Your task to perform on an android device: turn off airplane mode Image 0: 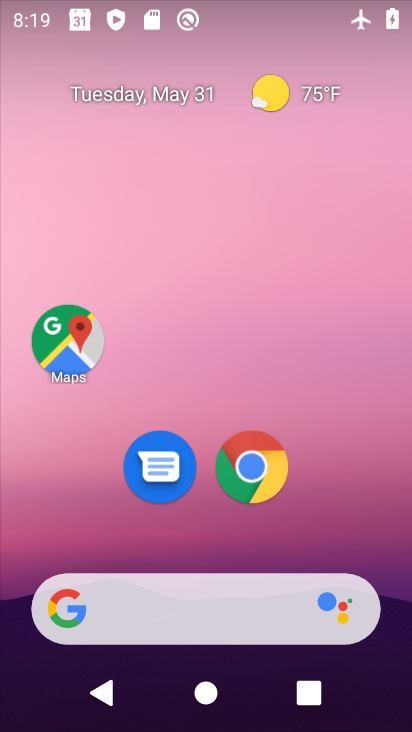
Step 0: click (404, 262)
Your task to perform on an android device: turn off airplane mode Image 1: 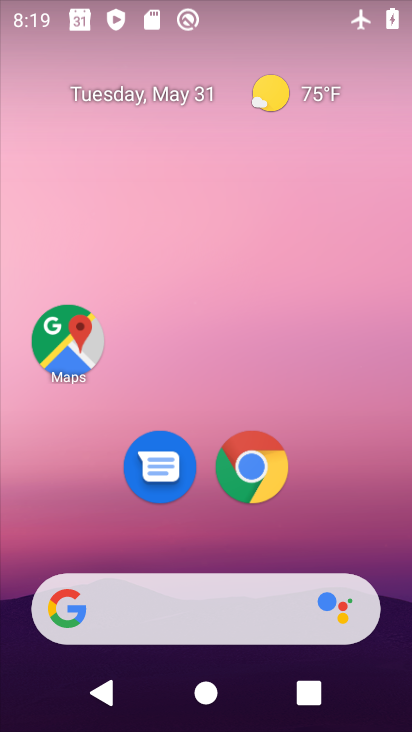
Step 1: drag from (210, 562) to (214, 126)
Your task to perform on an android device: turn off airplane mode Image 2: 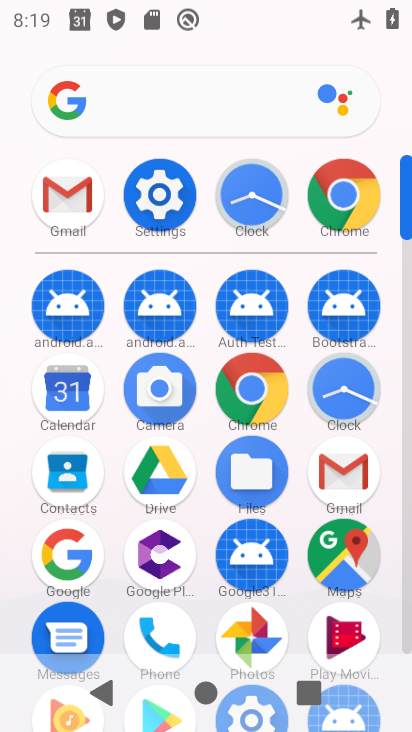
Step 2: click (159, 191)
Your task to perform on an android device: turn off airplane mode Image 3: 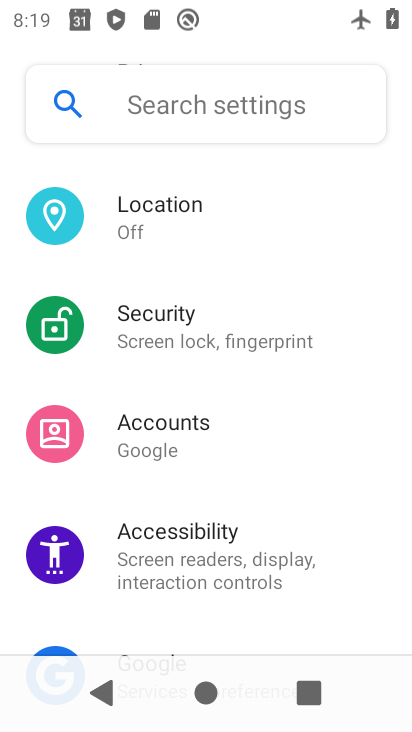
Step 3: drag from (234, 306) to (195, 36)
Your task to perform on an android device: turn off airplane mode Image 4: 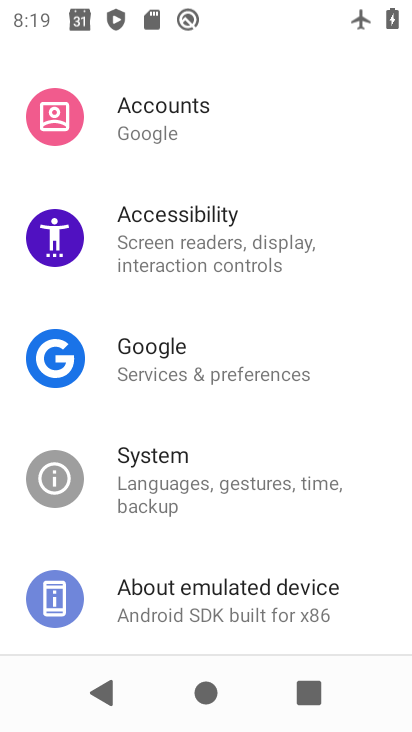
Step 4: drag from (215, 237) to (351, 728)
Your task to perform on an android device: turn off airplane mode Image 5: 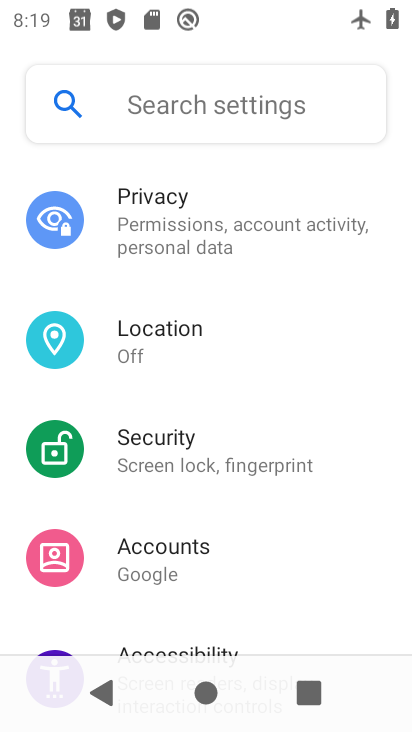
Step 5: drag from (195, 237) to (359, 729)
Your task to perform on an android device: turn off airplane mode Image 6: 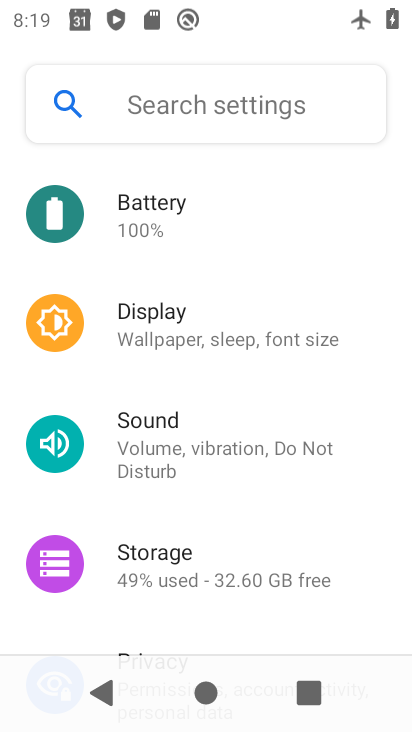
Step 6: drag from (189, 245) to (325, 729)
Your task to perform on an android device: turn off airplane mode Image 7: 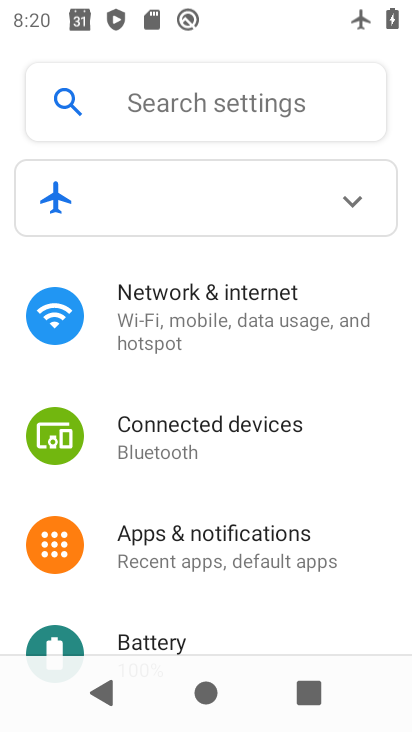
Step 7: click (177, 302)
Your task to perform on an android device: turn off airplane mode Image 8: 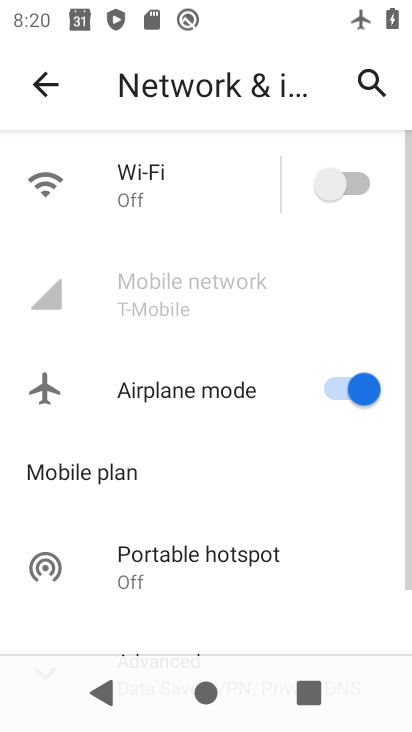
Step 8: click (366, 400)
Your task to perform on an android device: turn off airplane mode Image 9: 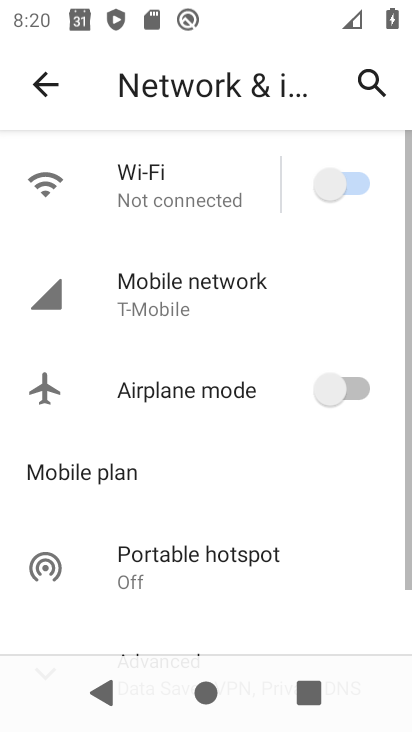
Step 9: task complete